Your task to perform on an android device: What is the news today? Image 0: 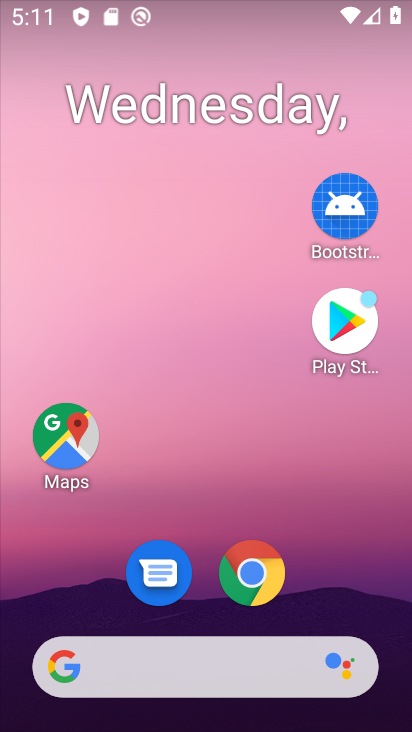
Step 0: click (265, 569)
Your task to perform on an android device: What is the news today? Image 1: 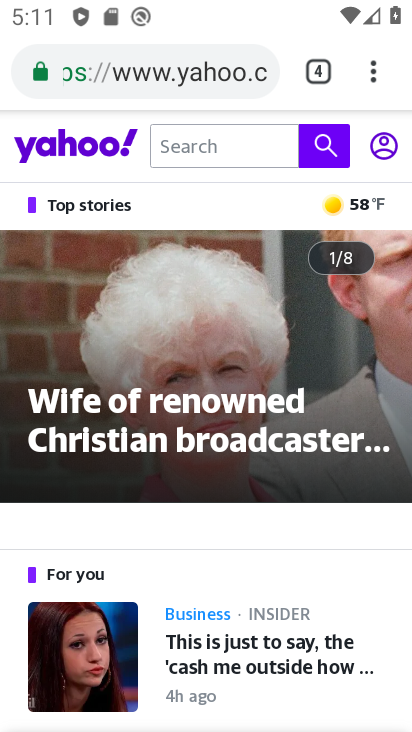
Step 1: click (224, 68)
Your task to perform on an android device: What is the news today? Image 2: 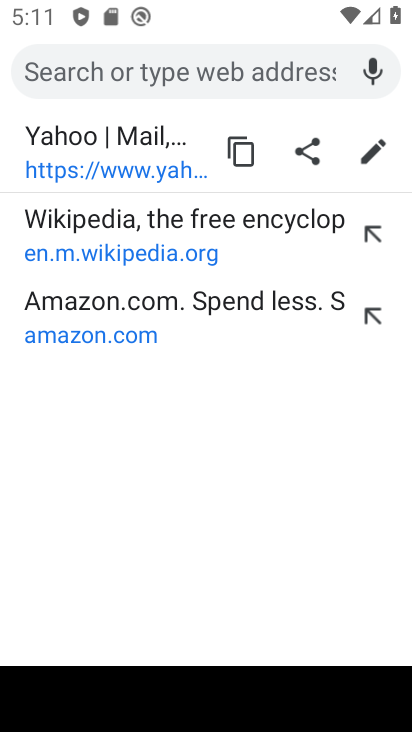
Step 2: type "What is the news today?"
Your task to perform on an android device: What is the news today? Image 3: 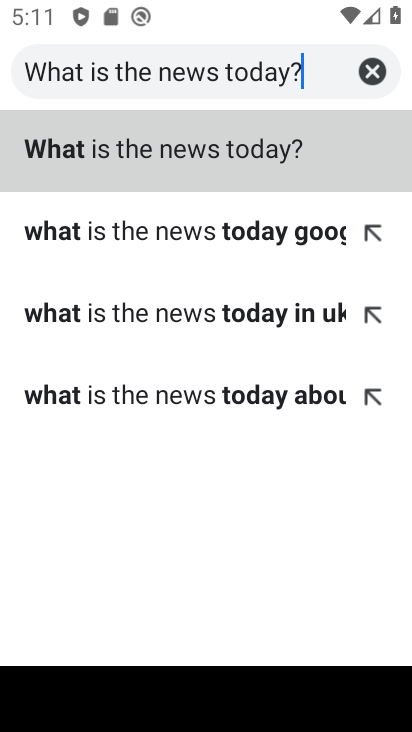
Step 3: click (115, 153)
Your task to perform on an android device: What is the news today? Image 4: 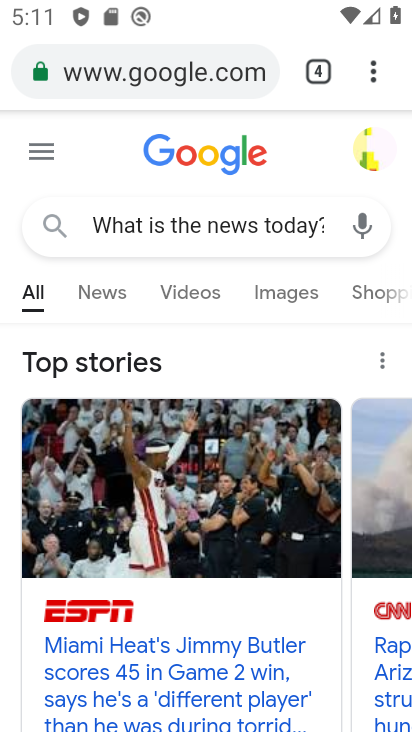
Step 4: task complete